Your task to perform on an android device: Turn on the flashlight Image 0: 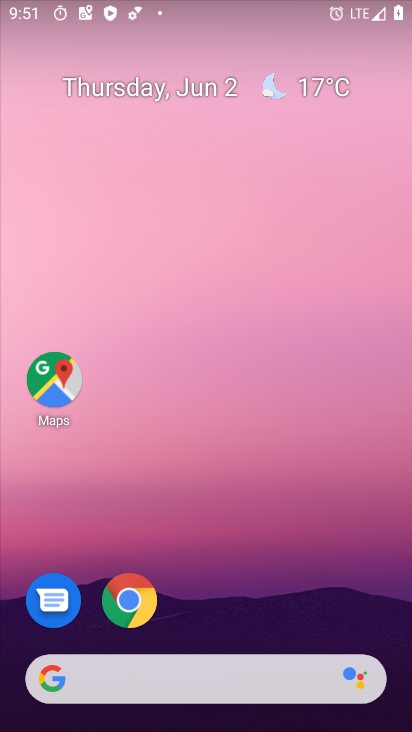
Step 0: drag from (241, 3) to (241, 361)
Your task to perform on an android device: Turn on the flashlight Image 1: 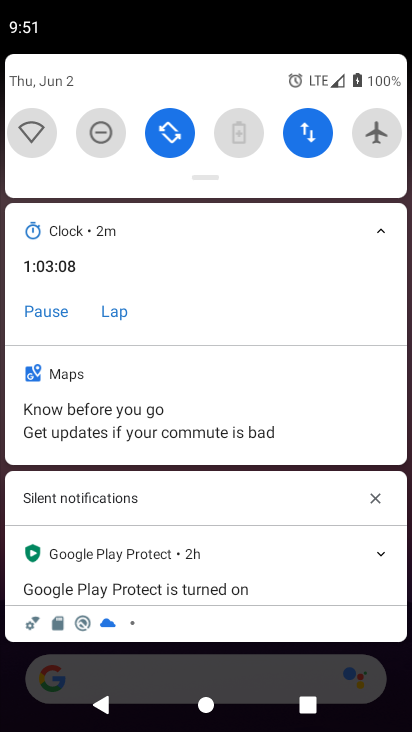
Step 1: drag from (205, 75) to (213, 264)
Your task to perform on an android device: Turn on the flashlight Image 2: 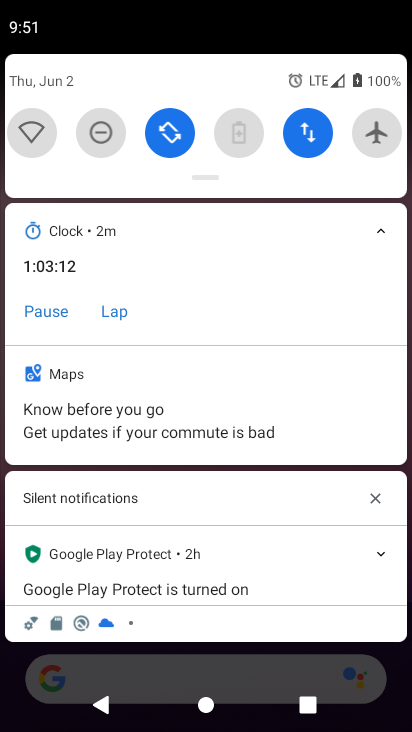
Step 2: drag from (199, 78) to (225, 334)
Your task to perform on an android device: Turn on the flashlight Image 3: 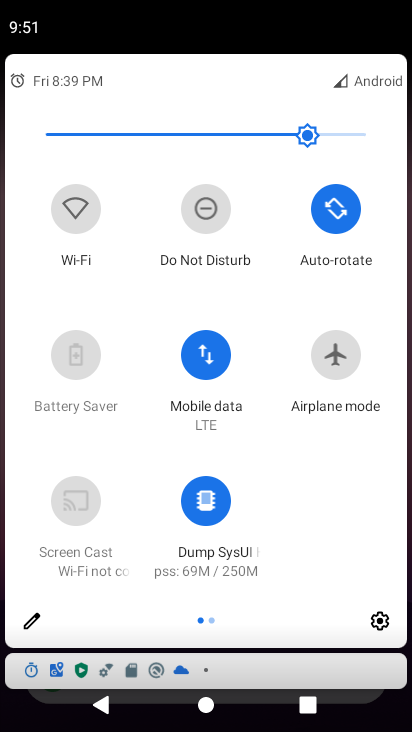
Step 3: click (28, 623)
Your task to perform on an android device: Turn on the flashlight Image 4: 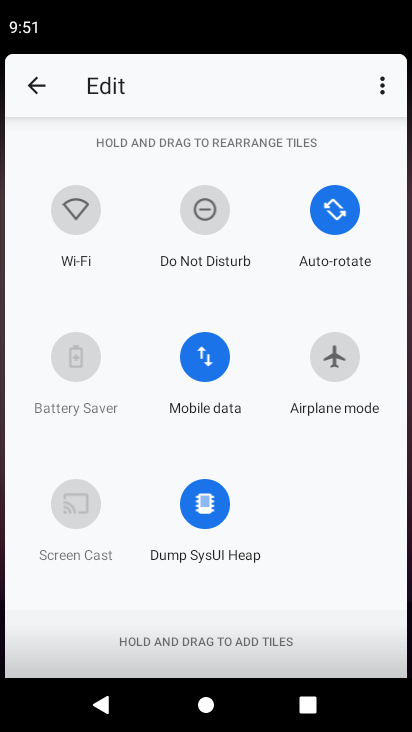
Step 4: task complete